Your task to perform on an android device: Open Chrome and go to settings Image 0: 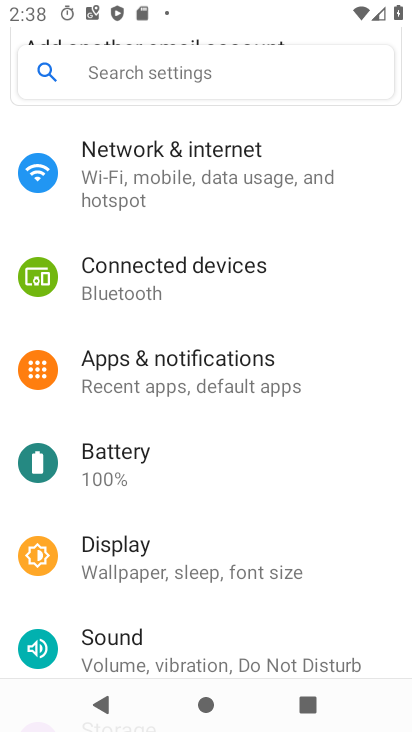
Step 0: press home button
Your task to perform on an android device: Open Chrome and go to settings Image 1: 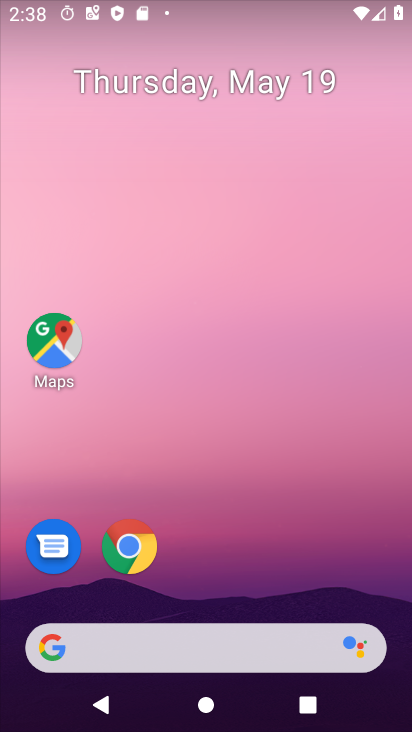
Step 1: click (124, 553)
Your task to perform on an android device: Open Chrome and go to settings Image 2: 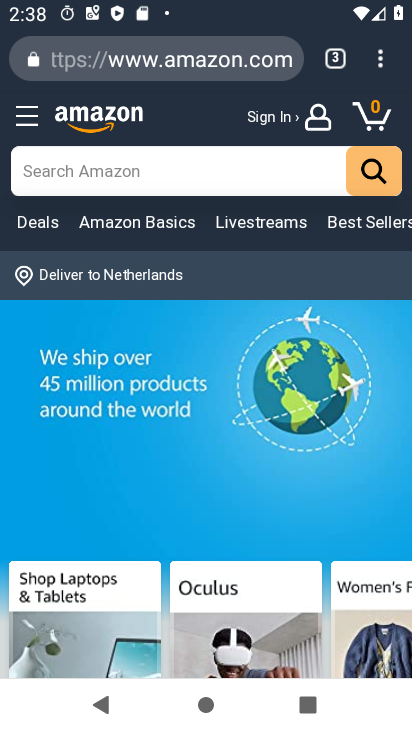
Step 2: click (365, 45)
Your task to perform on an android device: Open Chrome and go to settings Image 3: 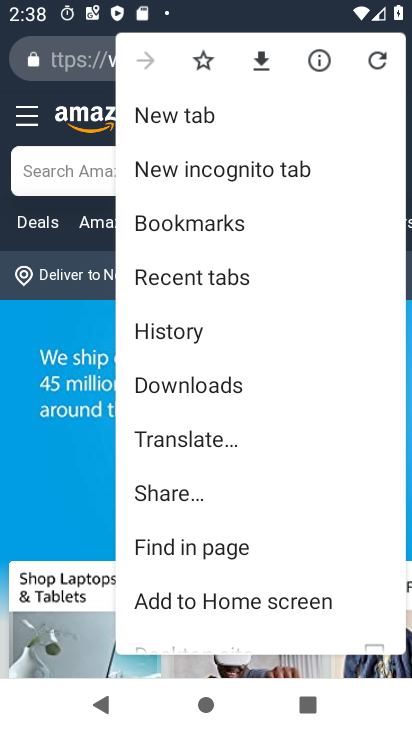
Step 3: drag from (184, 596) to (286, 70)
Your task to perform on an android device: Open Chrome and go to settings Image 4: 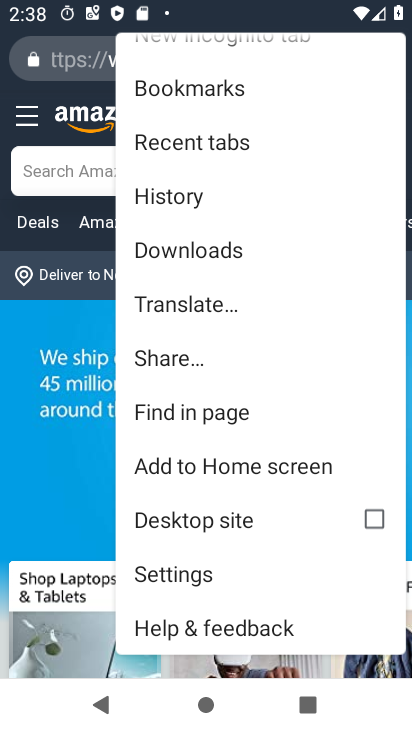
Step 4: click (188, 566)
Your task to perform on an android device: Open Chrome and go to settings Image 5: 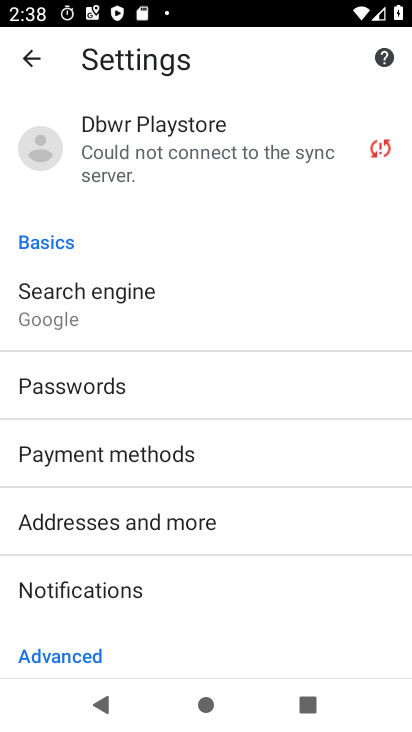
Step 5: task complete